Your task to perform on an android device: Search for Italian restaurants on Maps Image 0: 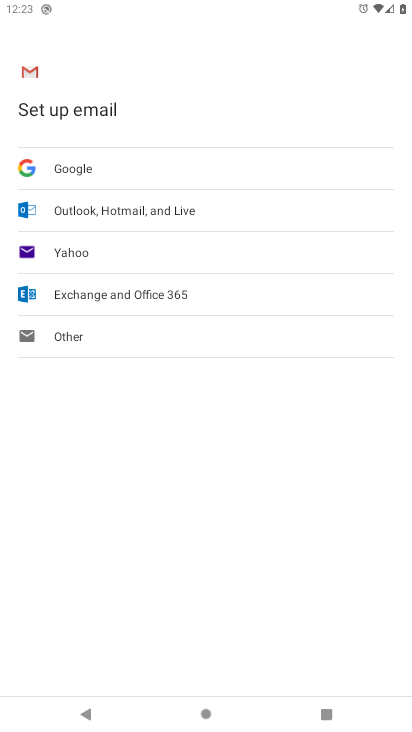
Step 0: press home button
Your task to perform on an android device: Search for Italian restaurants on Maps Image 1: 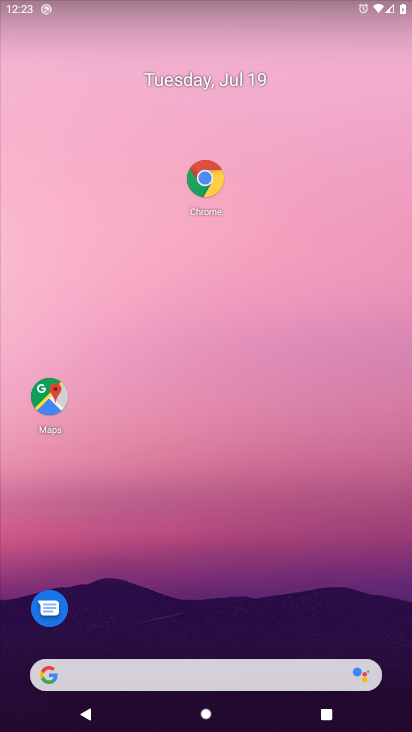
Step 1: click (45, 412)
Your task to perform on an android device: Search for Italian restaurants on Maps Image 2: 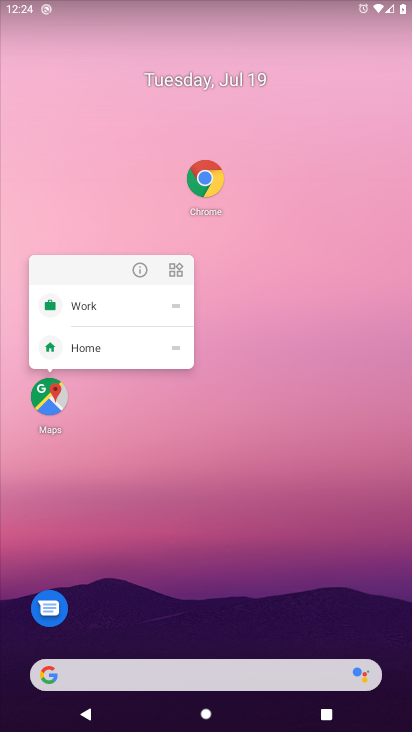
Step 2: click (48, 414)
Your task to perform on an android device: Search for Italian restaurants on Maps Image 3: 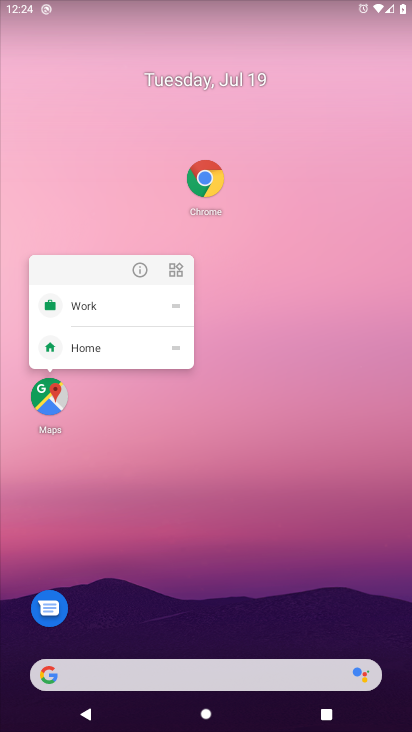
Step 3: click (45, 397)
Your task to perform on an android device: Search for Italian restaurants on Maps Image 4: 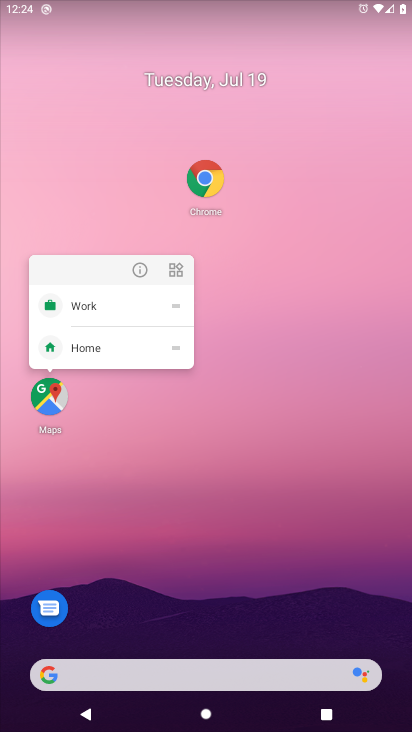
Step 4: click (51, 388)
Your task to perform on an android device: Search for Italian restaurants on Maps Image 5: 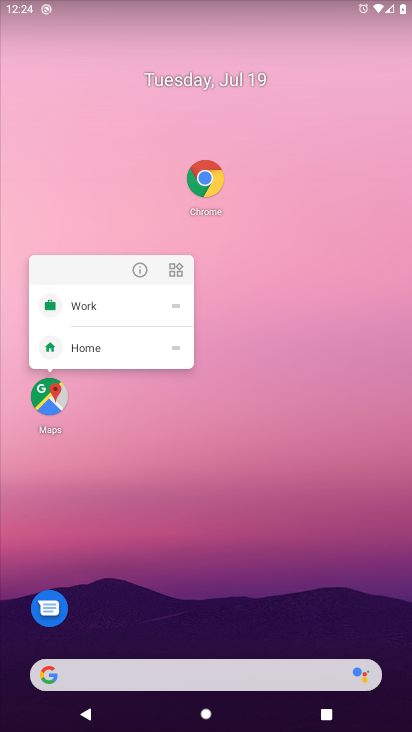
Step 5: click (51, 411)
Your task to perform on an android device: Search for Italian restaurants on Maps Image 6: 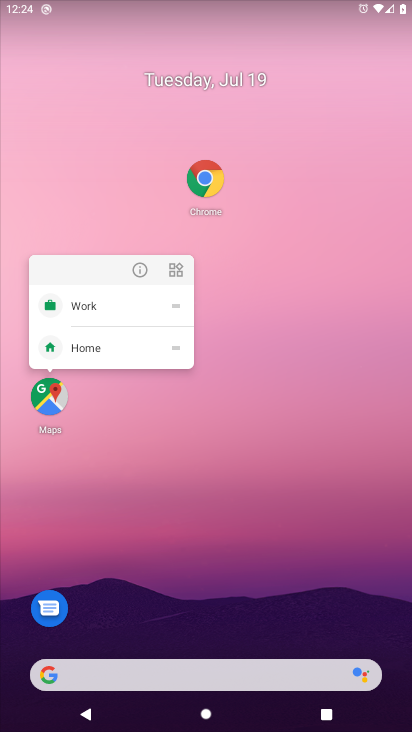
Step 6: click (44, 406)
Your task to perform on an android device: Search for Italian restaurants on Maps Image 7: 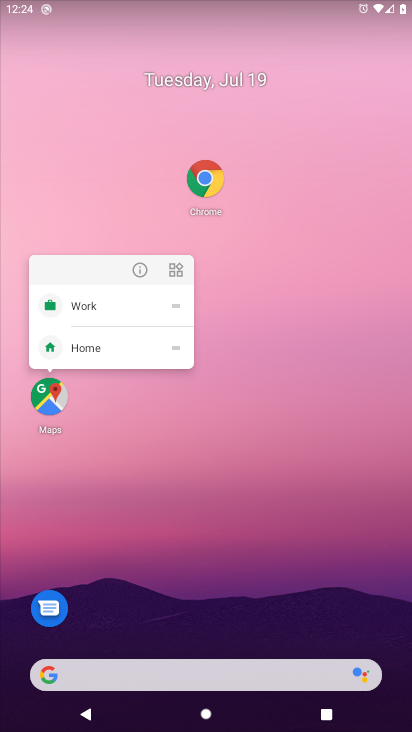
Step 7: click (43, 396)
Your task to perform on an android device: Search for Italian restaurants on Maps Image 8: 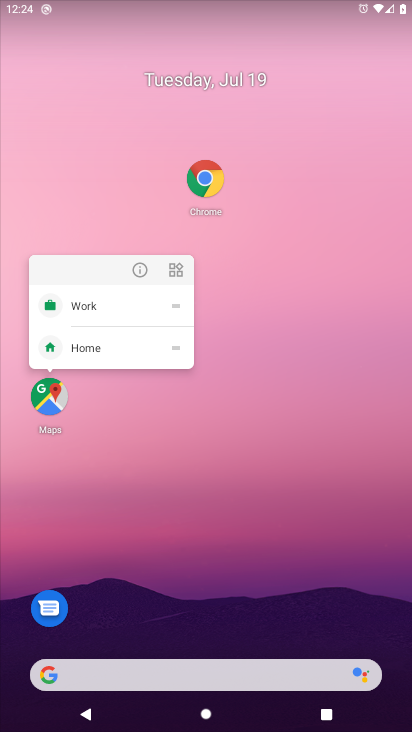
Step 8: task complete